Your task to perform on an android device: Open sound settings Image 0: 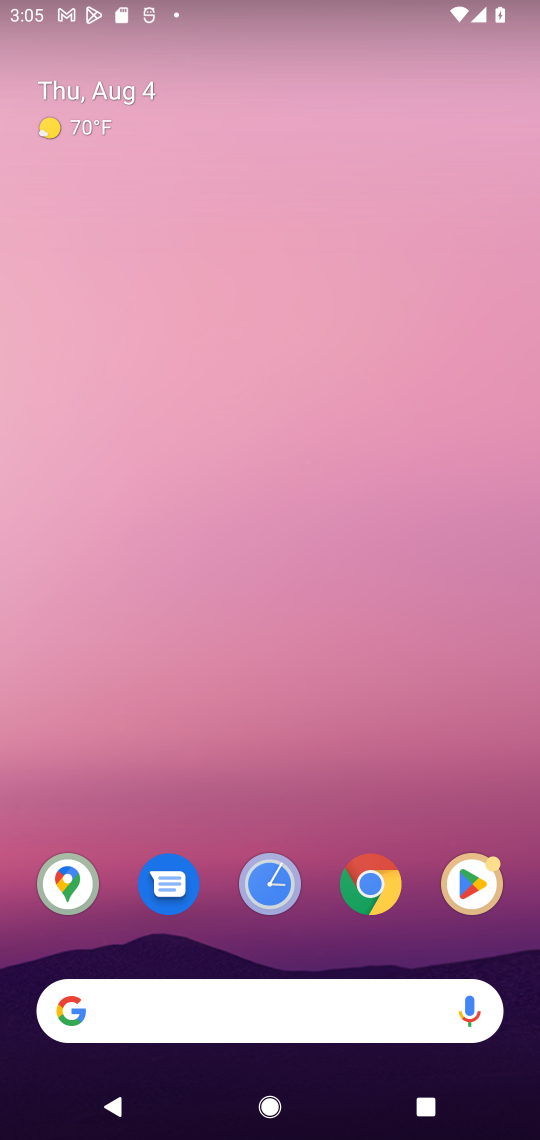
Step 0: drag from (327, 976) to (285, 45)
Your task to perform on an android device: Open sound settings Image 1: 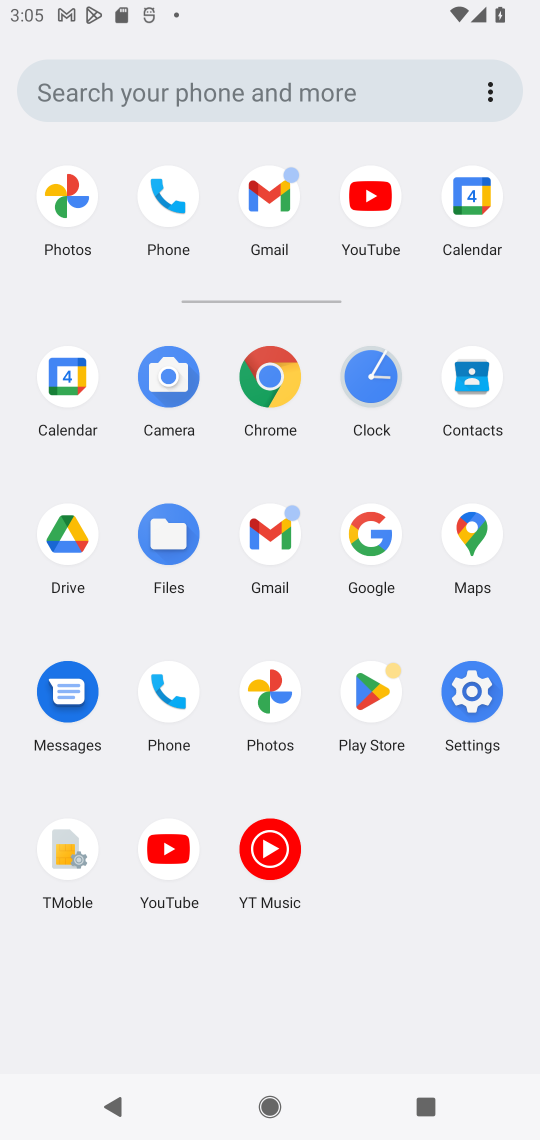
Step 1: click (475, 688)
Your task to perform on an android device: Open sound settings Image 2: 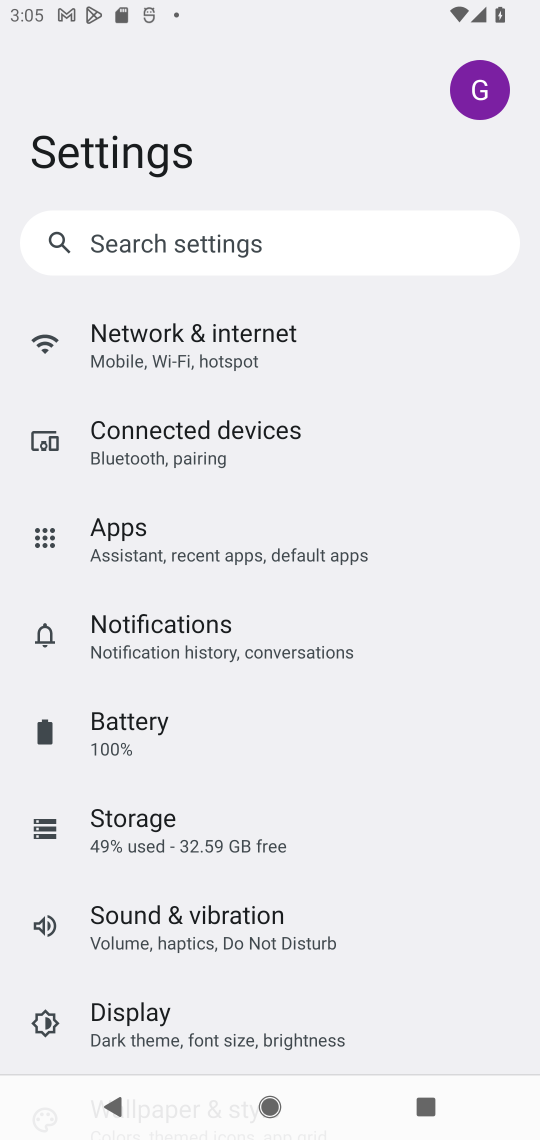
Step 2: click (245, 947)
Your task to perform on an android device: Open sound settings Image 3: 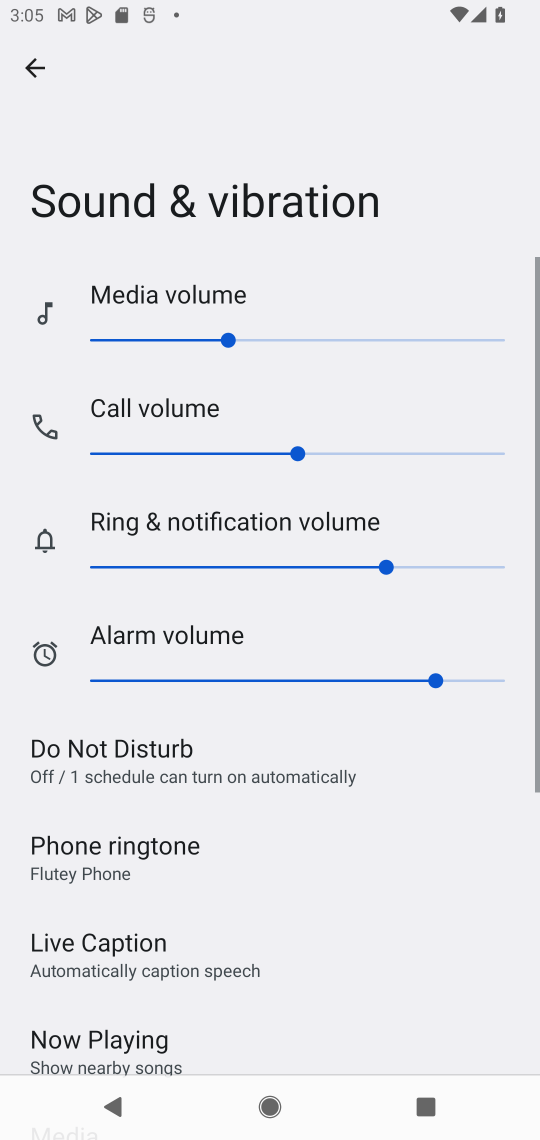
Step 3: task complete